Your task to perform on an android device: Open the map Image 0: 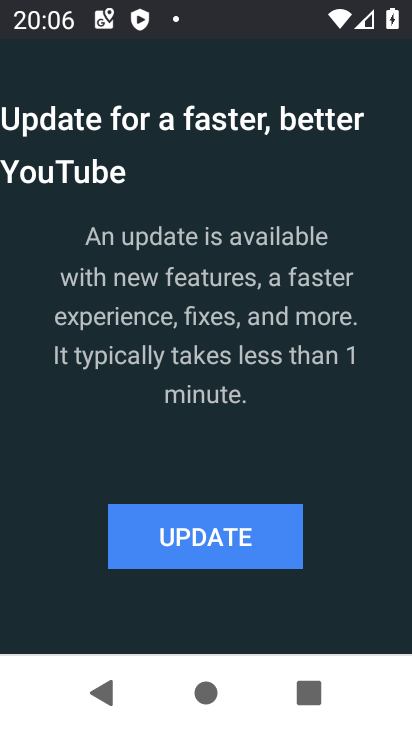
Step 0: press home button
Your task to perform on an android device: Open the map Image 1: 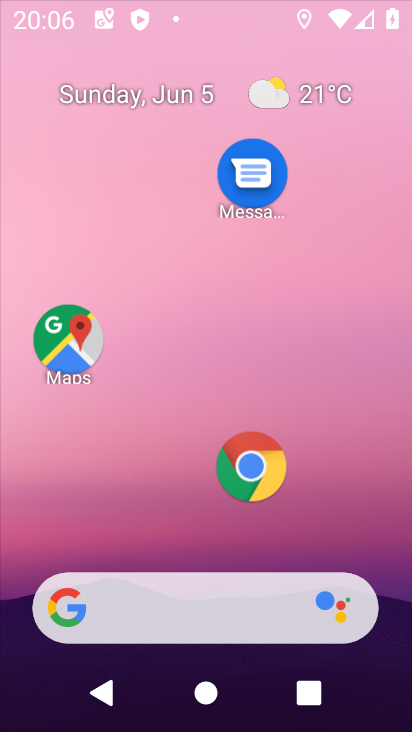
Step 1: drag from (207, 559) to (287, 294)
Your task to perform on an android device: Open the map Image 2: 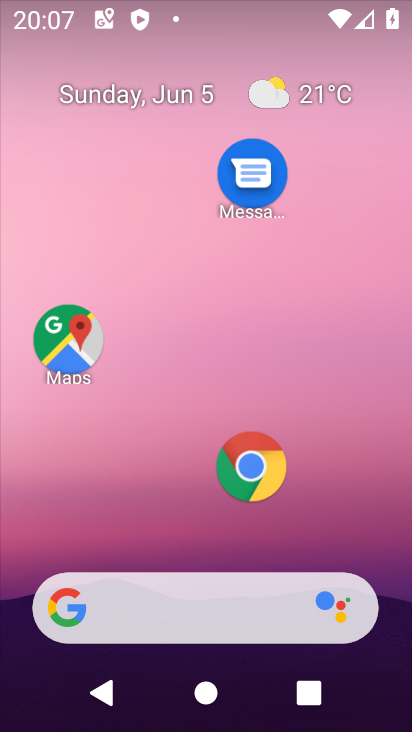
Step 2: drag from (192, 534) to (411, 415)
Your task to perform on an android device: Open the map Image 3: 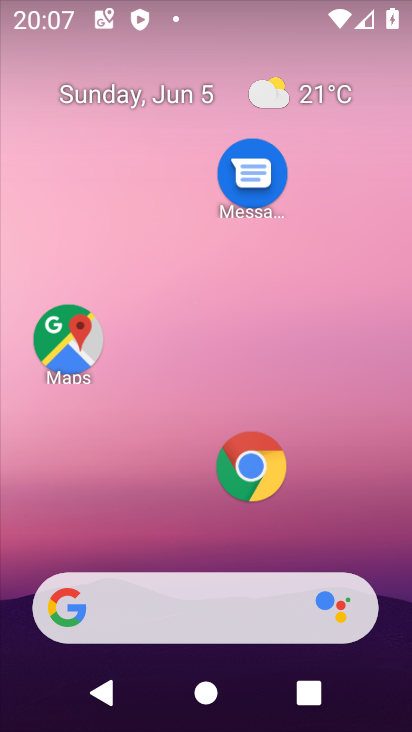
Step 3: drag from (226, 512) to (252, 156)
Your task to perform on an android device: Open the map Image 4: 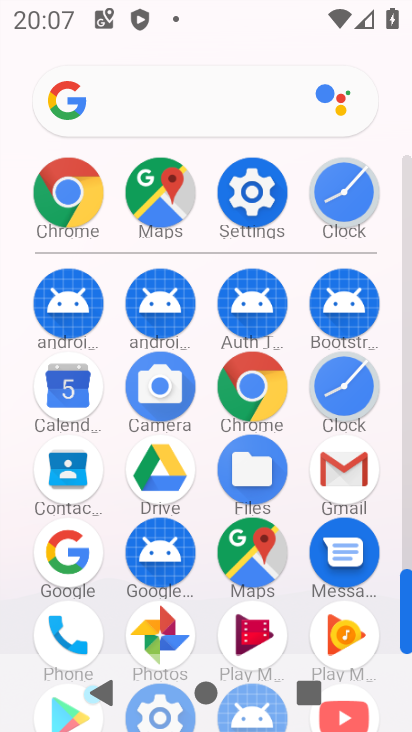
Step 4: click (159, 149)
Your task to perform on an android device: Open the map Image 5: 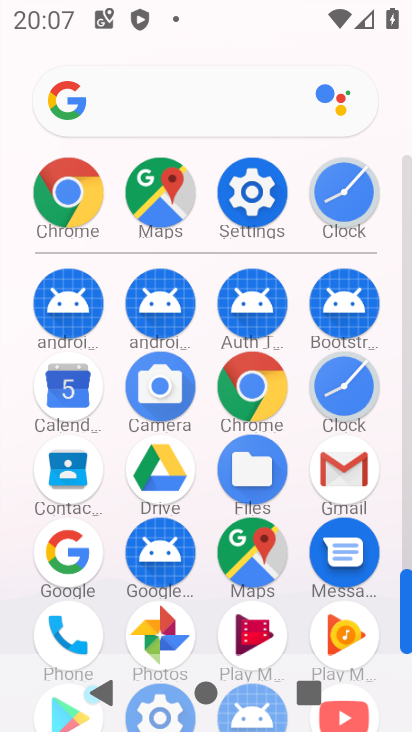
Step 5: click (165, 196)
Your task to perform on an android device: Open the map Image 6: 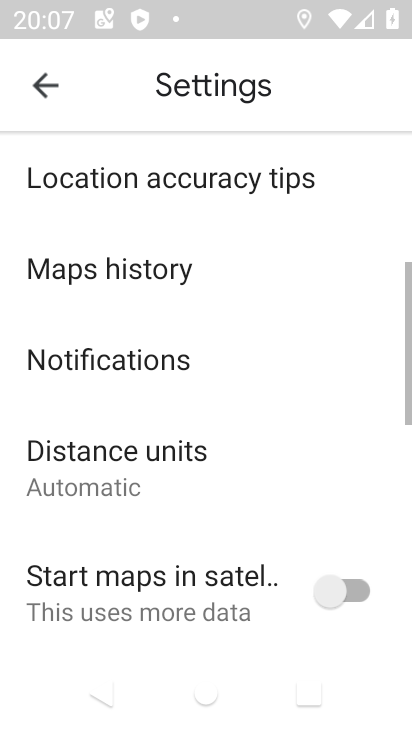
Step 6: drag from (203, 540) to (280, 24)
Your task to perform on an android device: Open the map Image 7: 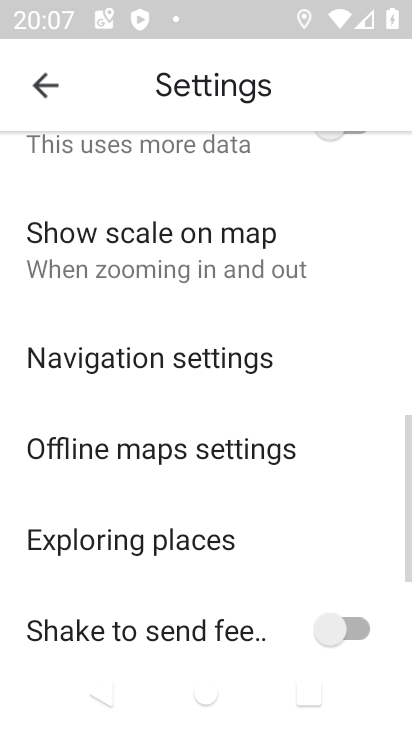
Step 7: drag from (202, 490) to (256, 48)
Your task to perform on an android device: Open the map Image 8: 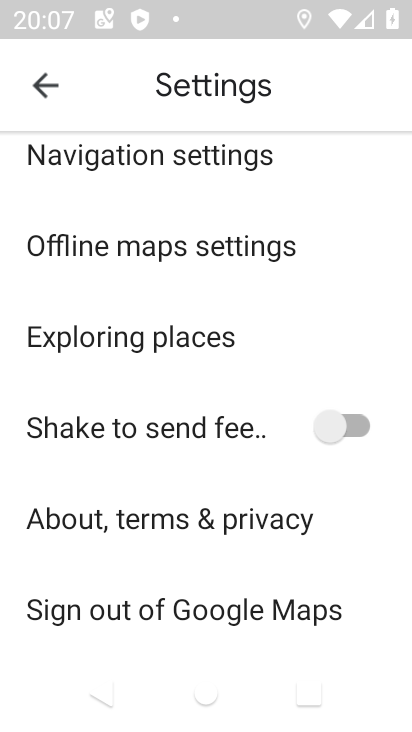
Step 8: click (31, 98)
Your task to perform on an android device: Open the map Image 9: 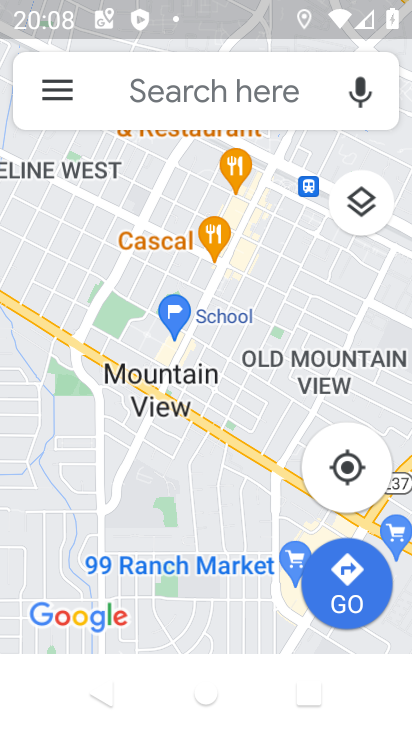
Step 9: task complete